Your task to perform on an android device: turn on translation in the chrome app Image 0: 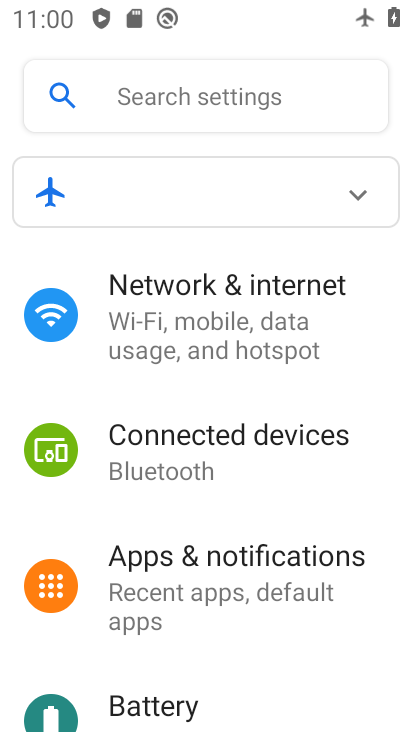
Step 0: press home button
Your task to perform on an android device: turn on translation in the chrome app Image 1: 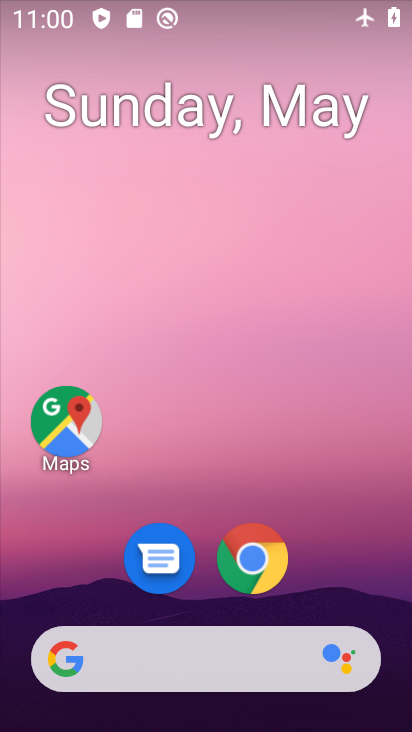
Step 1: drag from (370, 574) to (315, 154)
Your task to perform on an android device: turn on translation in the chrome app Image 2: 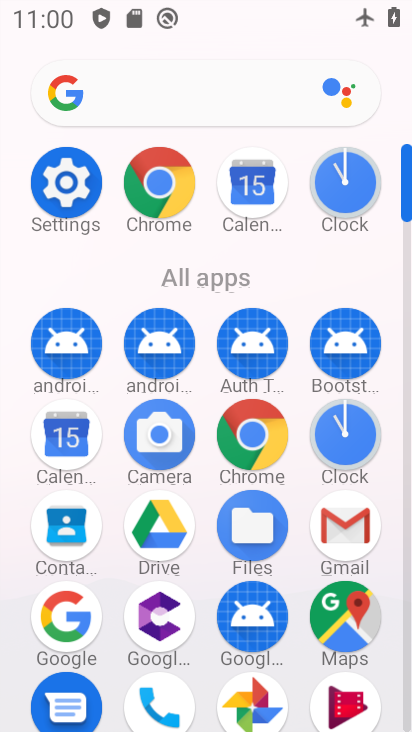
Step 2: click (255, 439)
Your task to perform on an android device: turn on translation in the chrome app Image 3: 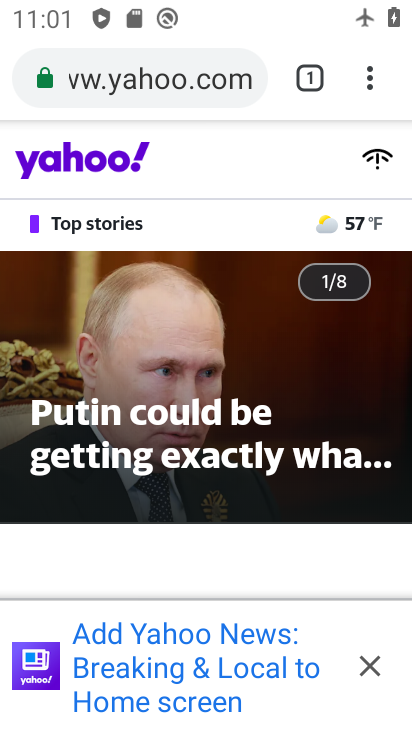
Step 3: click (372, 84)
Your task to perform on an android device: turn on translation in the chrome app Image 4: 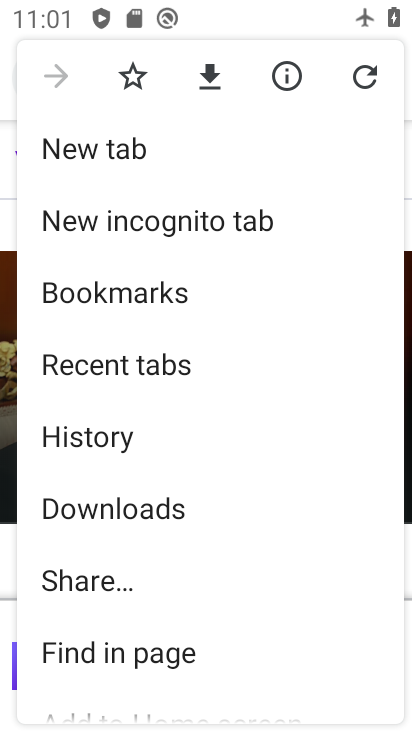
Step 4: drag from (316, 632) to (316, 500)
Your task to perform on an android device: turn on translation in the chrome app Image 5: 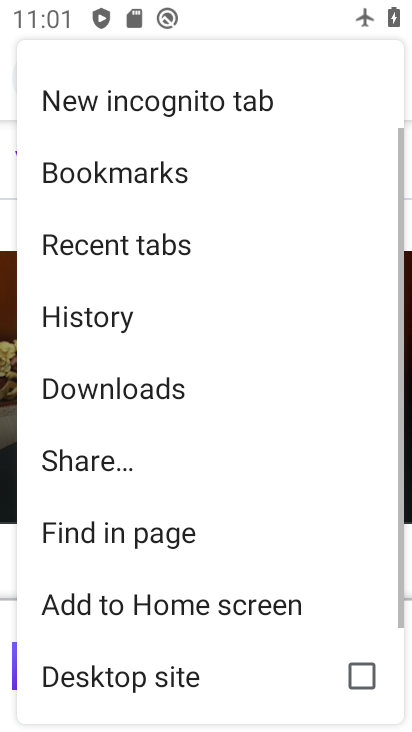
Step 5: drag from (329, 650) to (322, 476)
Your task to perform on an android device: turn on translation in the chrome app Image 6: 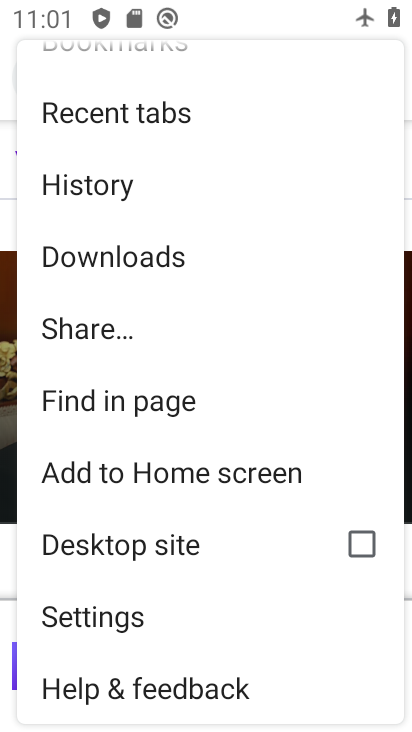
Step 6: click (113, 621)
Your task to perform on an android device: turn on translation in the chrome app Image 7: 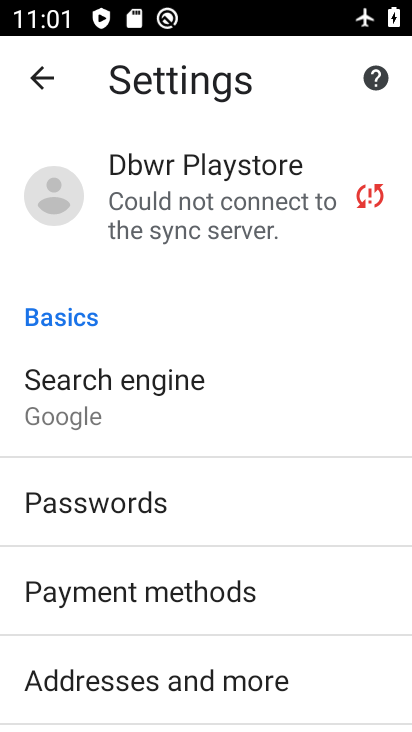
Step 7: drag from (346, 666) to (346, 556)
Your task to perform on an android device: turn on translation in the chrome app Image 8: 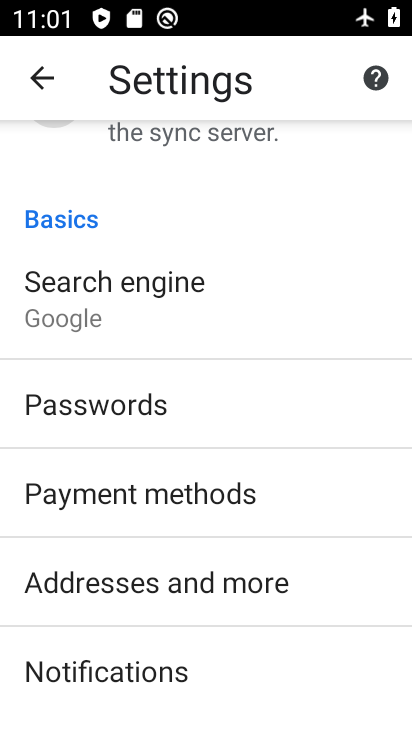
Step 8: drag from (336, 665) to (337, 451)
Your task to perform on an android device: turn on translation in the chrome app Image 9: 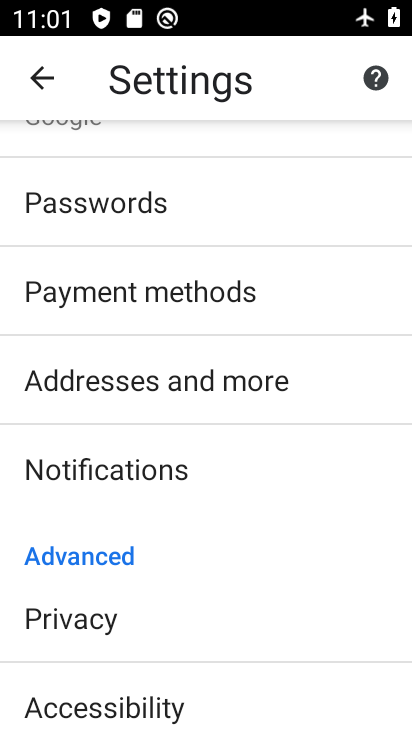
Step 9: drag from (316, 651) to (330, 462)
Your task to perform on an android device: turn on translation in the chrome app Image 10: 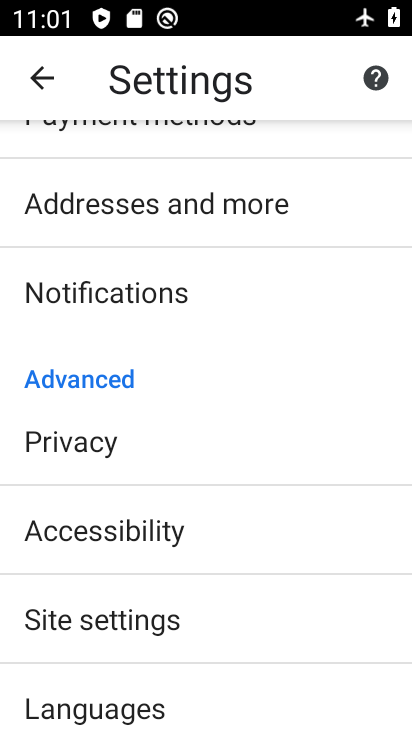
Step 10: drag from (307, 667) to (306, 483)
Your task to perform on an android device: turn on translation in the chrome app Image 11: 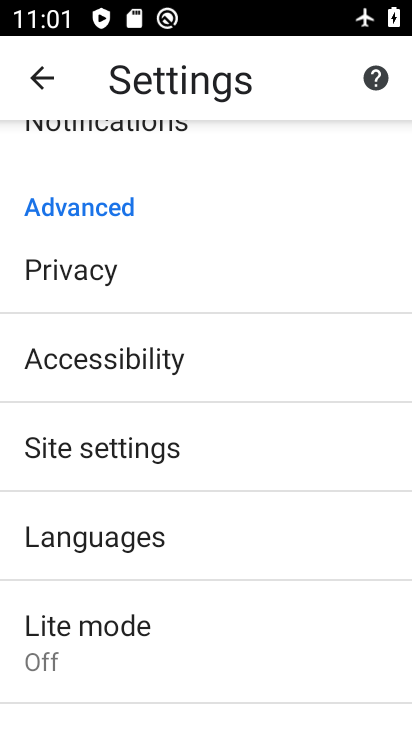
Step 11: drag from (303, 658) to (296, 470)
Your task to perform on an android device: turn on translation in the chrome app Image 12: 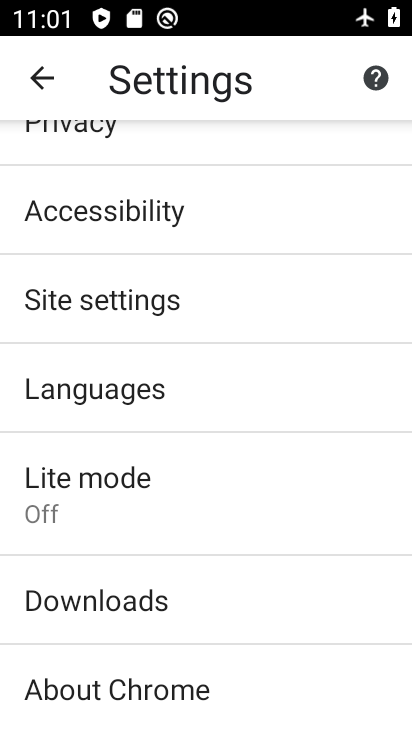
Step 12: click (165, 390)
Your task to perform on an android device: turn on translation in the chrome app Image 13: 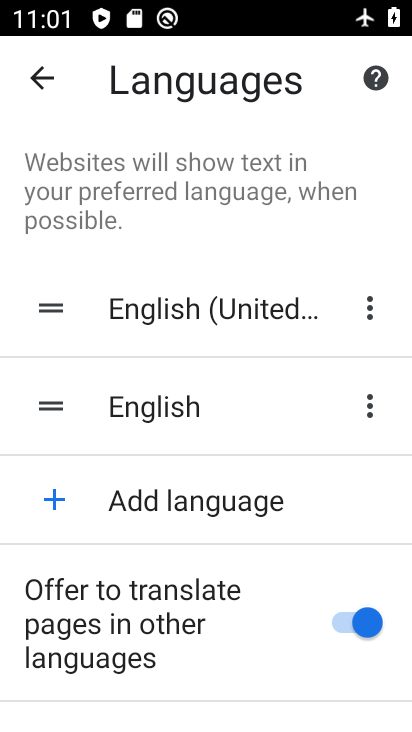
Step 13: task complete